Your task to perform on an android device: open app "Adobe Acrobat Reader: Edit PDF" Image 0: 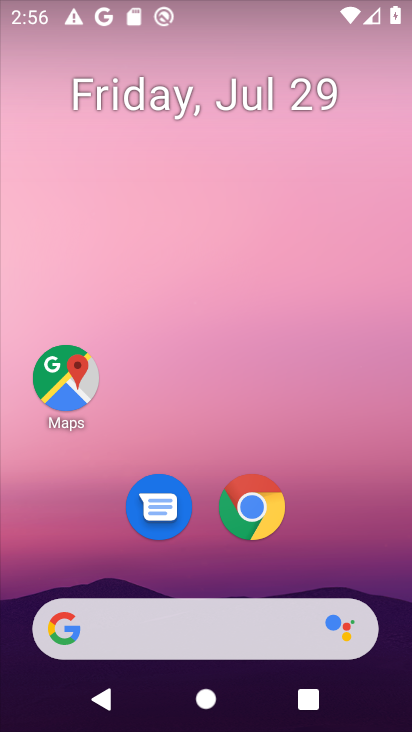
Step 0: click (200, 640)
Your task to perform on an android device: open app "Adobe Acrobat Reader: Edit PDF" Image 1: 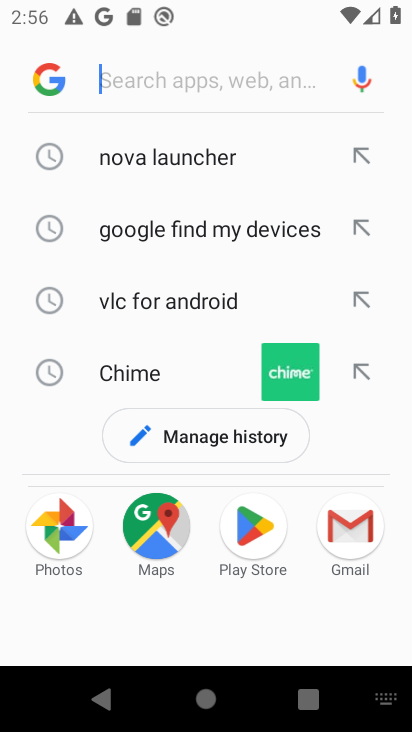
Step 1: type "adobe acrobat"
Your task to perform on an android device: open app "Adobe Acrobat Reader: Edit PDF" Image 2: 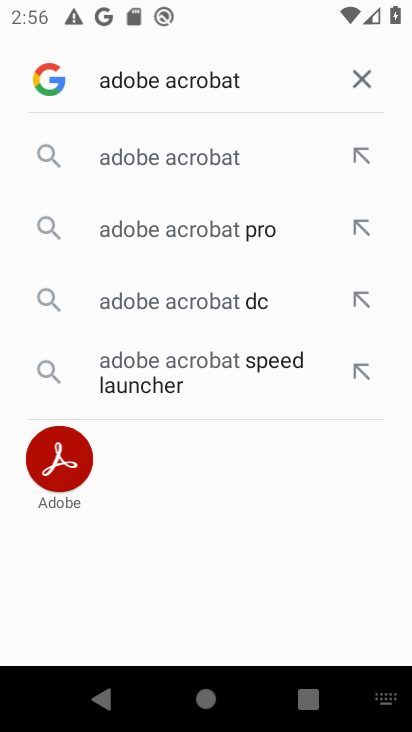
Step 2: click (187, 164)
Your task to perform on an android device: open app "Adobe Acrobat Reader: Edit PDF" Image 3: 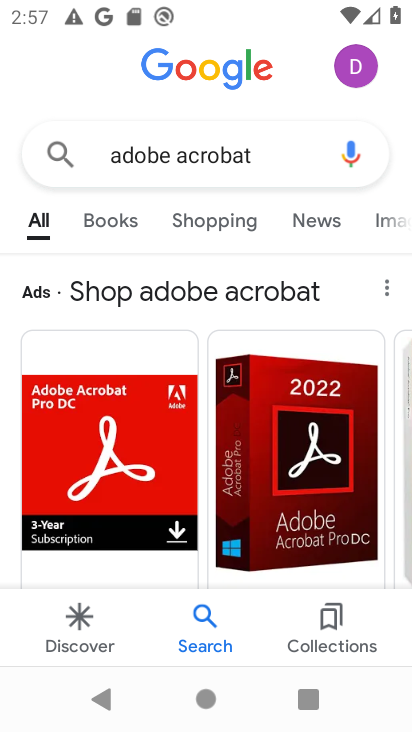
Step 3: task complete